Your task to perform on an android device: check the backup settings in the google photos Image 0: 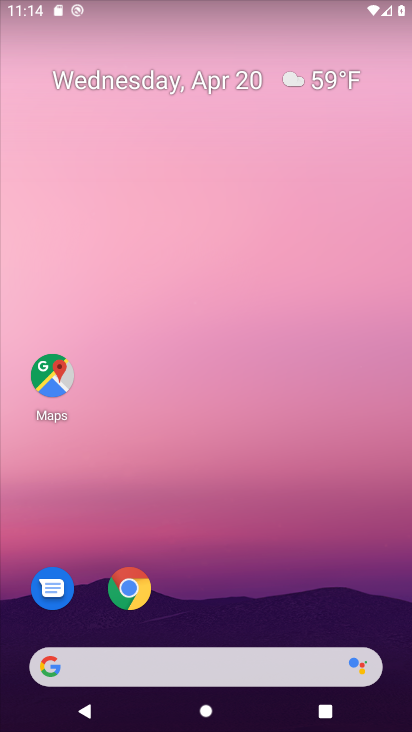
Step 0: drag from (392, 644) to (347, 214)
Your task to perform on an android device: check the backup settings in the google photos Image 1: 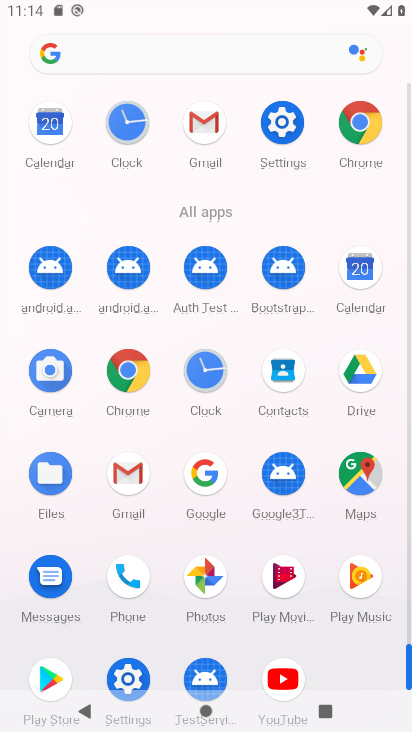
Step 1: click (200, 575)
Your task to perform on an android device: check the backup settings in the google photos Image 2: 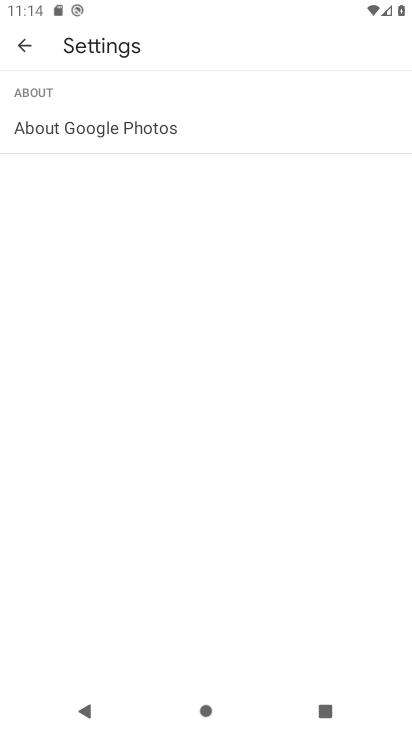
Step 2: press back button
Your task to perform on an android device: check the backup settings in the google photos Image 3: 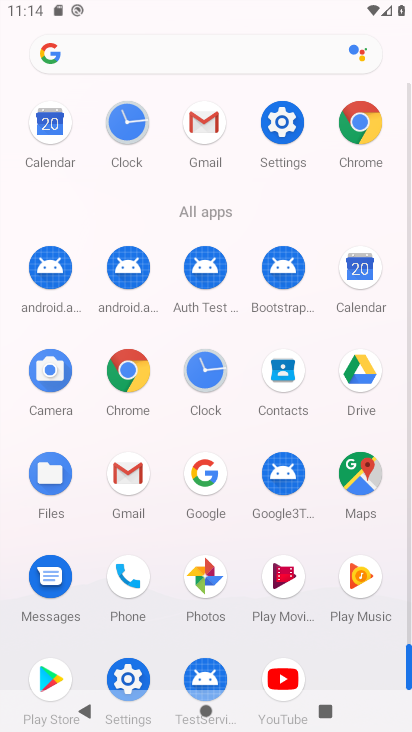
Step 3: click (202, 578)
Your task to perform on an android device: check the backup settings in the google photos Image 4: 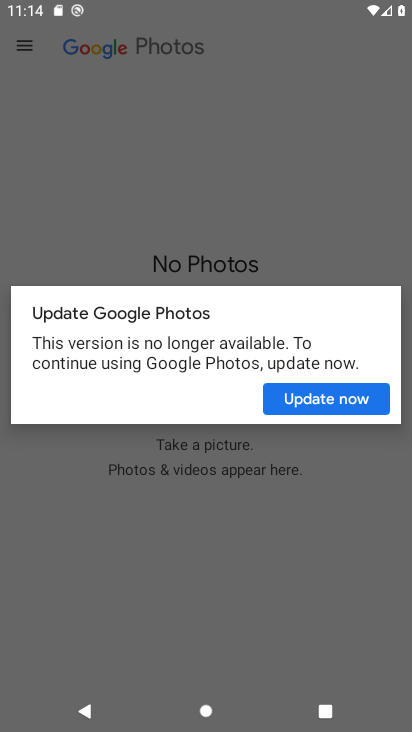
Step 4: click (312, 397)
Your task to perform on an android device: check the backup settings in the google photos Image 5: 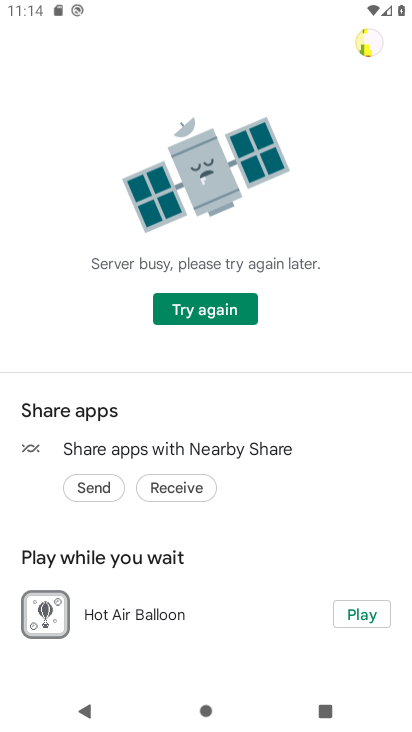
Step 5: click (196, 316)
Your task to perform on an android device: check the backup settings in the google photos Image 6: 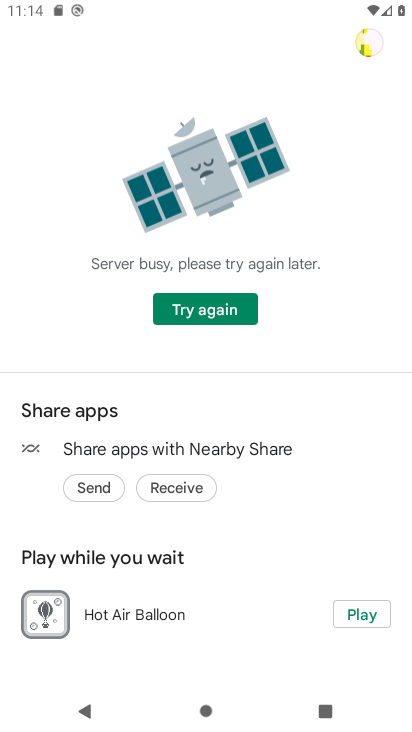
Step 6: task complete